Your task to perform on an android device: change timer sound Image 0: 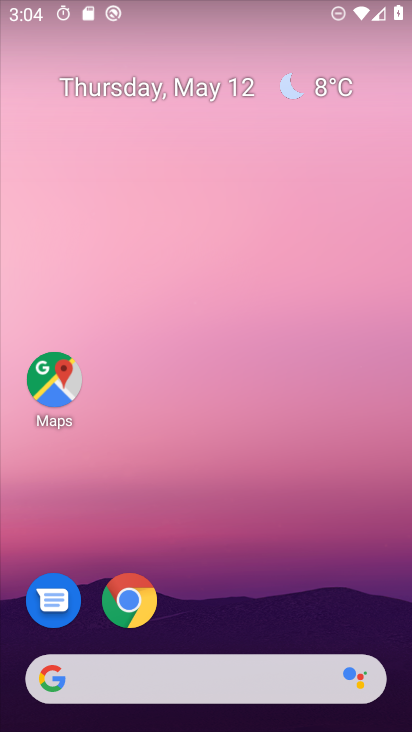
Step 0: drag from (186, 708) to (185, 203)
Your task to perform on an android device: change timer sound Image 1: 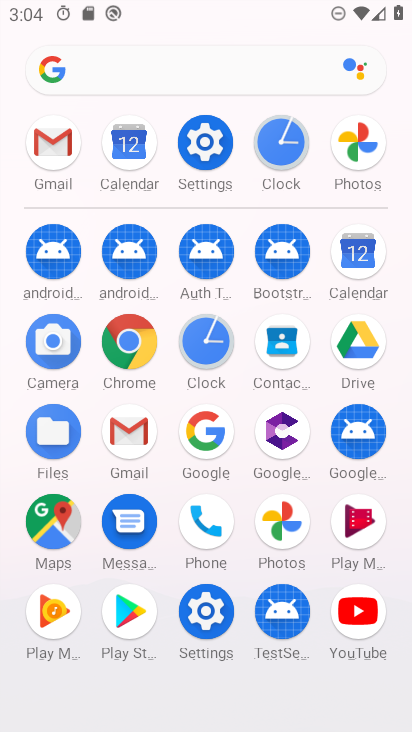
Step 1: click (284, 146)
Your task to perform on an android device: change timer sound Image 2: 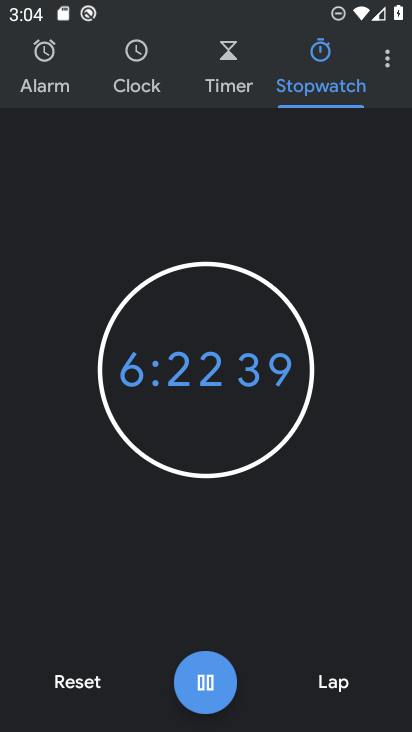
Step 2: click (389, 66)
Your task to perform on an android device: change timer sound Image 3: 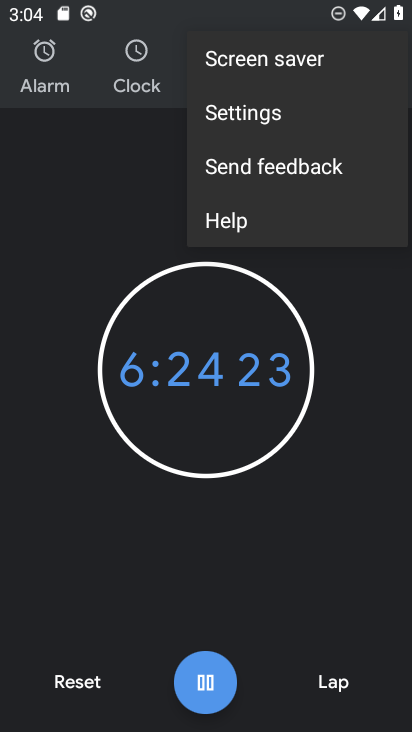
Step 3: click (237, 100)
Your task to perform on an android device: change timer sound Image 4: 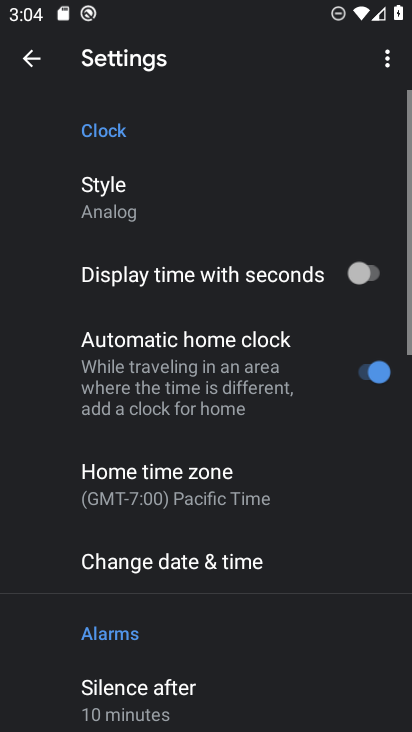
Step 4: drag from (190, 619) to (190, 257)
Your task to perform on an android device: change timer sound Image 5: 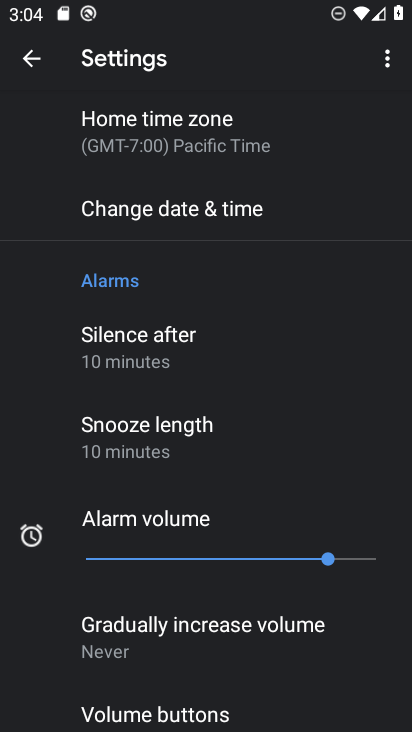
Step 5: drag from (154, 500) to (157, 146)
Your task to perform on an android device: change timer sound Image 6: 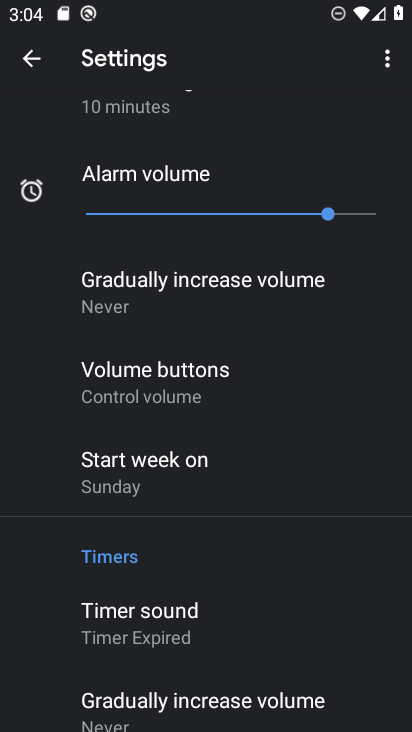
Step 6: click (148, 623)
Your task to perform on an android device: change timer sound Image 7: 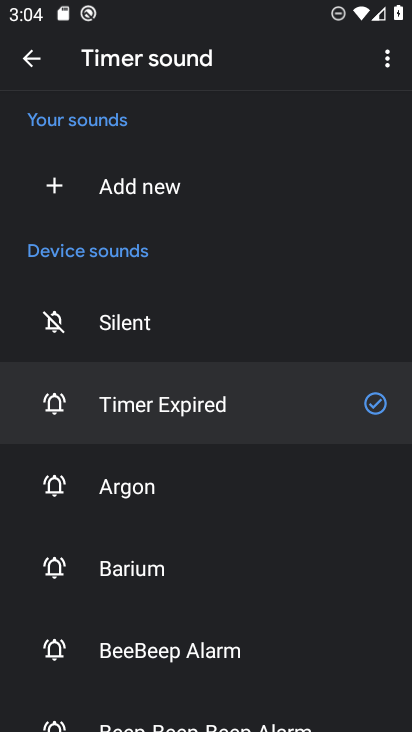
Step 7: click (123, 482)
Your task to perform on an android device: change timer sound Image 8: 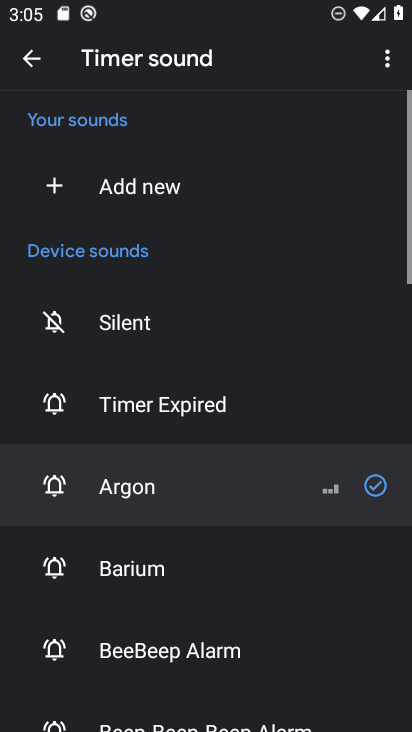
Step 8: task complete